Your task to perform on an android device: toggle improve location accuracy Image 0: 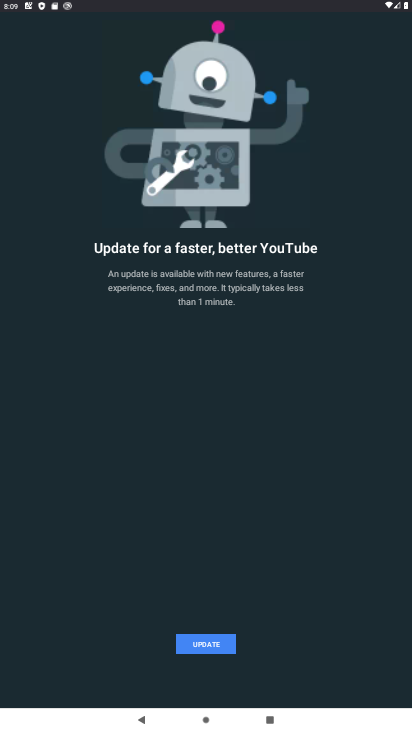
Step 0: press home button
Your task to perform on an android device: toggle improve location accuracy Image 1: 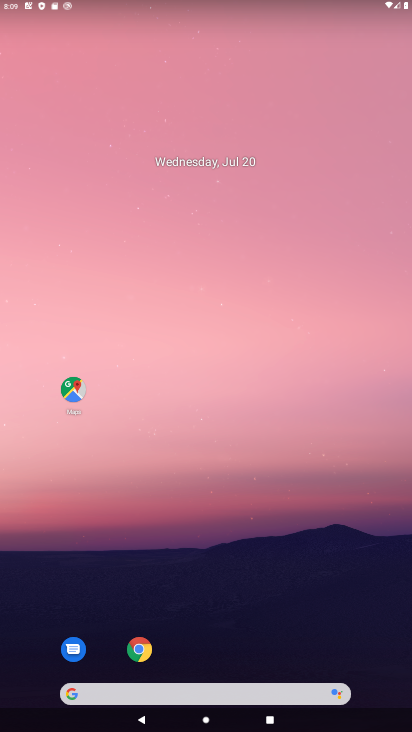
Step 1: drag from (199, 690) to (214, 11)
Your task to perform on an android device: toggle improve location accuracy Image 2: 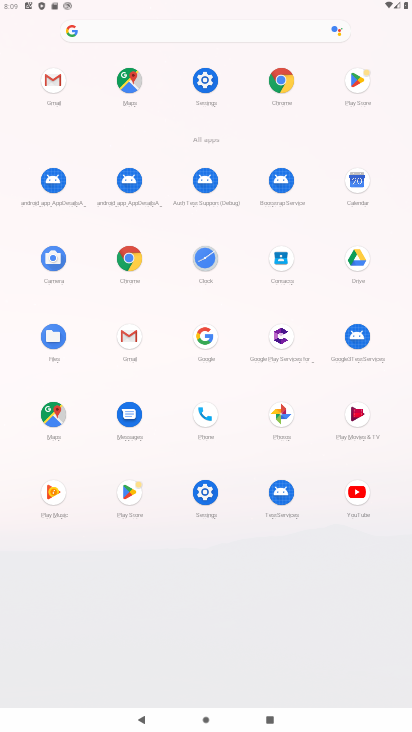
Step 2: click (202, 79)
Your task to perform on an android device: toggle improve location accuracy Image 3: 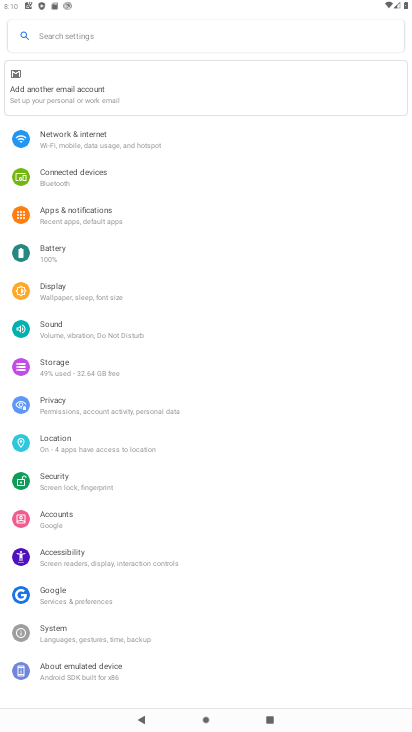
Step 3: click (65, 443)
Your task to perform on an android device: toggle improve location accuracy Image 4: 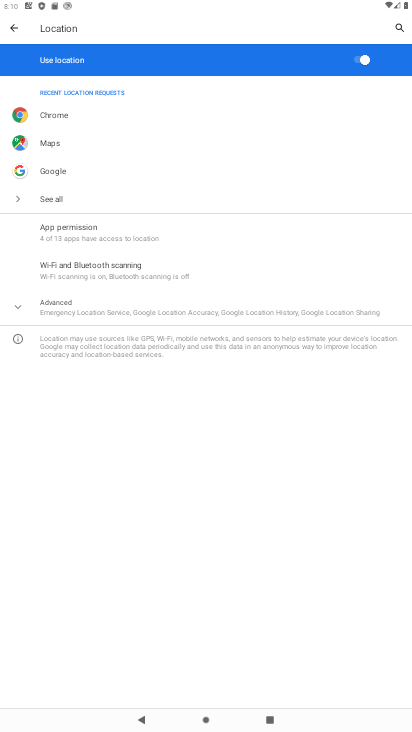
Step 4: click (98, 309)
Your task to perform on an android device: toggle improve location accuracy Image 5: 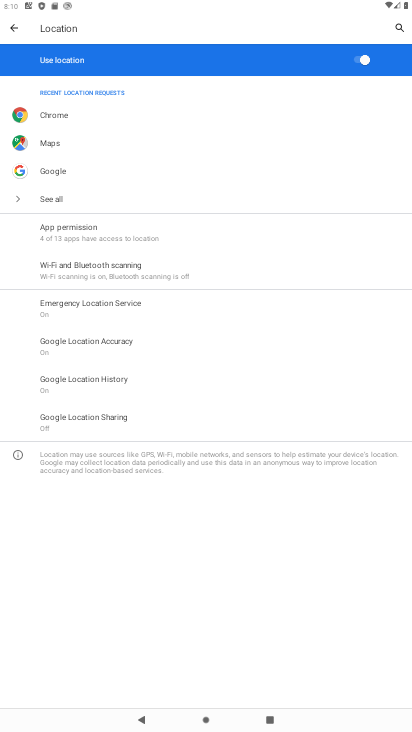
Step 5: click (99, 340)
Your task to perform on an android device: toggle improve location accuracy Image 6: 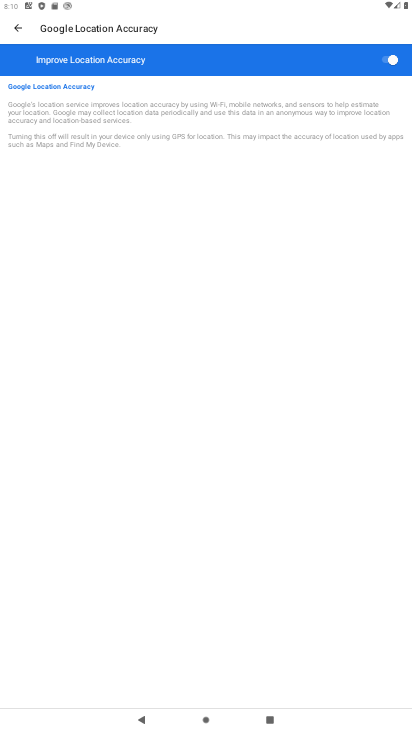
Step 6: click (388, 60)
Your task to perform on an android device: toggle improve location accuracy Image 7: 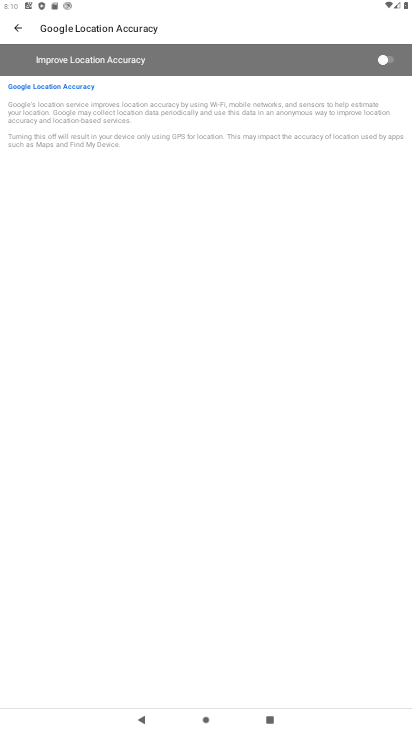
Step 7: task complete